Your task to perform on an android device: open the mobile data screen to see how much data has been used Image 0: 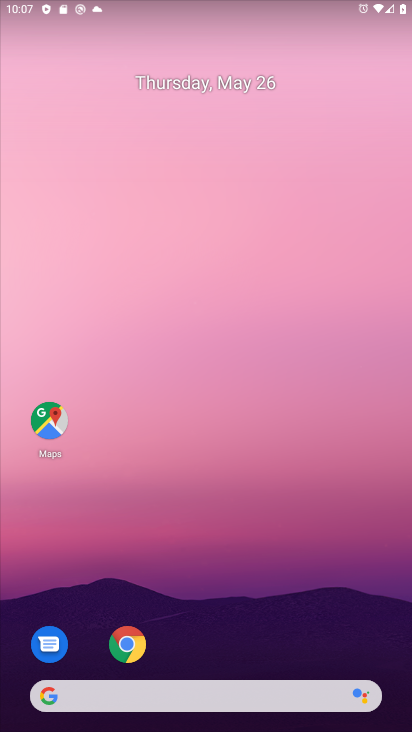
Step 0: drag from (202, 624) to (214, 119)
Your task to perform on an android device: open the mobile data screen to see how much data has been used Image 1: 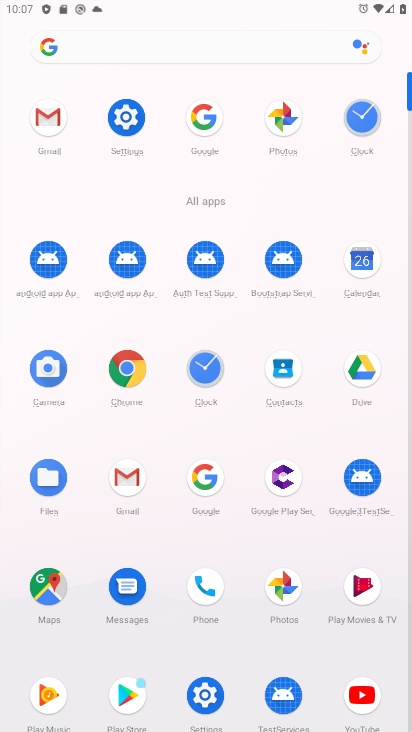
Step 1: click (111, 113)
Your task to perform on an android device: open the mobile data screen to see how much data has been used Image 2: 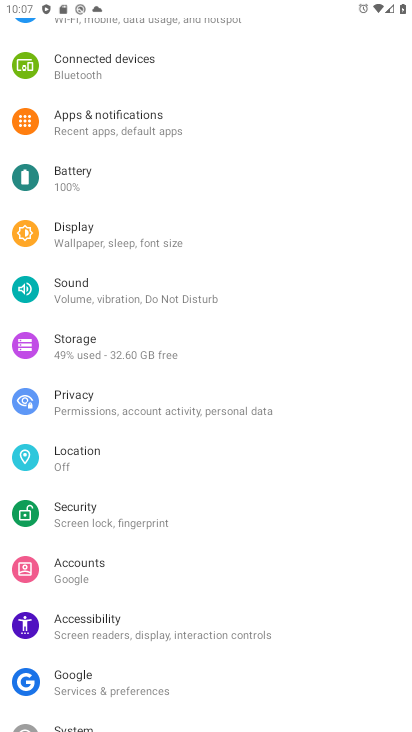
Step 2: drag from (111, 113) to (141, 484)
Your task to perform on an android device: open the mobile data screen to see how much data has been used Image 3: 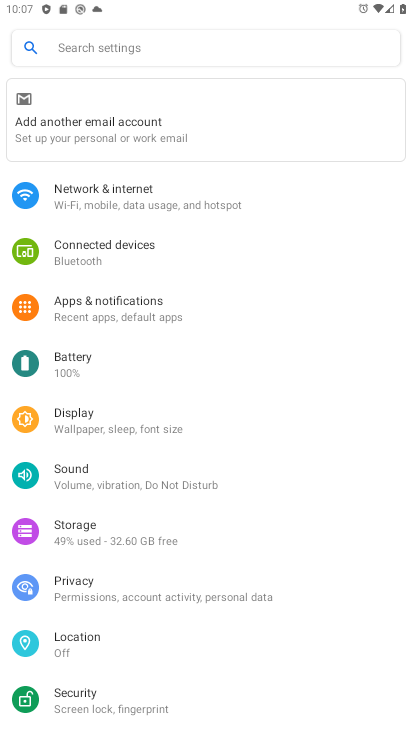
Step 3: click (170, 183)
Your task to perform on an android device: open the mobile data screen to see how much data has been used Image 4: 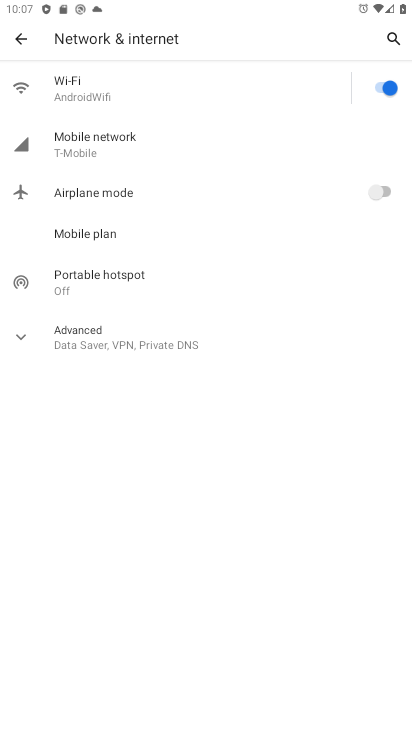
Step 4: click (183, 159)
Your task to perform on an android device: open the mobile data screen to see how much data has been used Image 5: 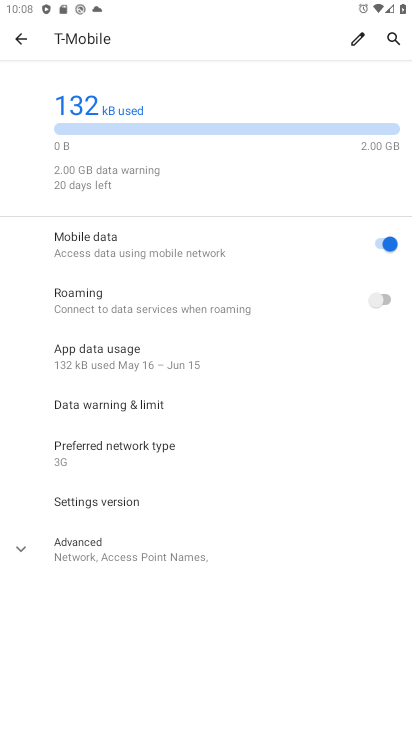
Step 5: click (142, 366)
Your task to perform on an android device: open the mobile data screen to see how much data has been used Image 6: 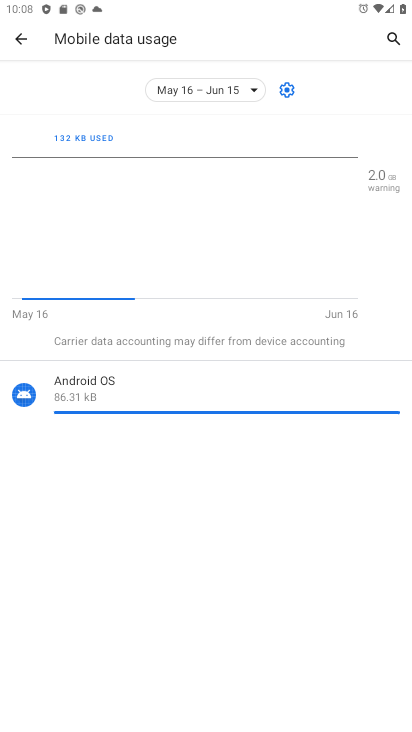
Step 6: task complete